Your task to perform on an android device: Open display settings Image 0: 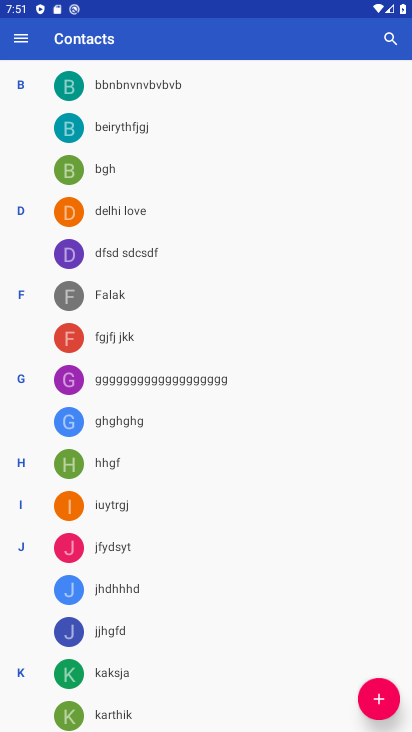
Step 0: press back button
Your task to perform on an android device: Open display settings Image 1: 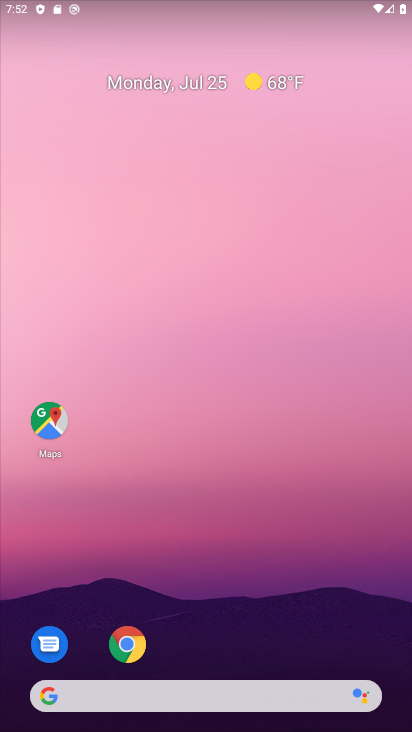
Step 1: drag from (232, 253) to (171, 102)
Your task to perform on an android device: Open display settings Image 2: 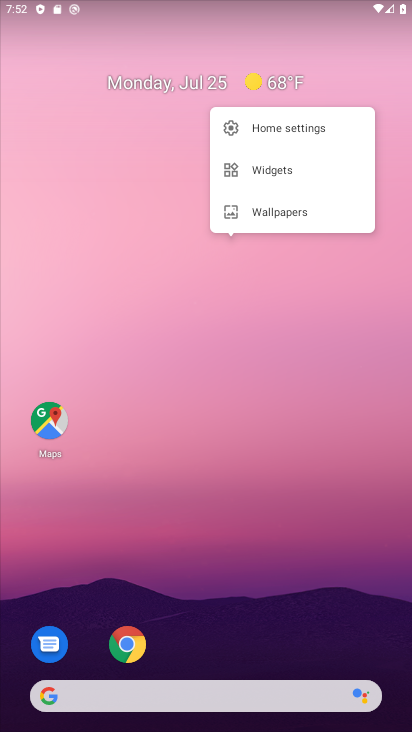
Step 2: click (209, 36)
Your task to perform on an android device: Open display settings Image 3: 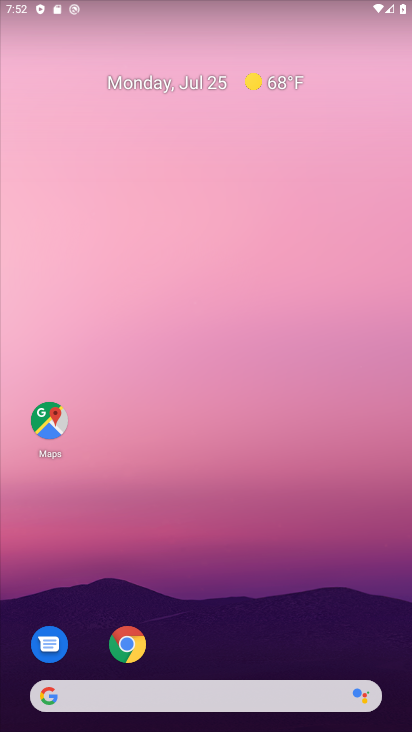
Step 3: drag from (247, 219) to (243, 66)
Your task to perform on an android device: Open display settings Image 4: 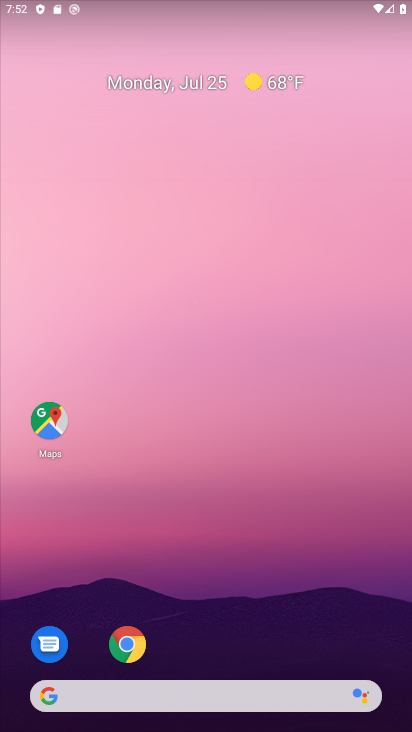
Step 4: drag from (296, 329) to (219, 147)
Your task to perform on an android device: Open display settings Image 5: 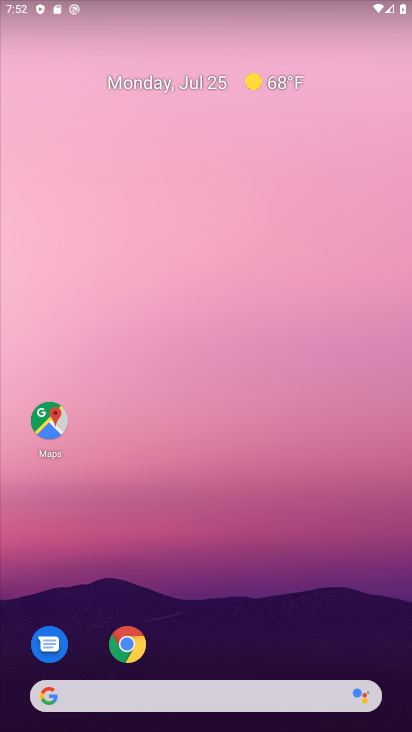
Step 5: drag from (168, 21) to (270, 65)
Your task to perform on an android device: Open display settings Image 6: 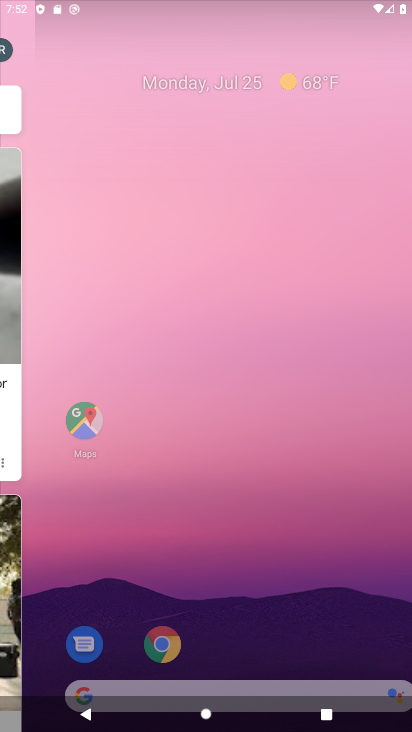
Step 6: drag from (261, 537) to (224, 74)
Your task to perform on an android device: Open display settings Image 7: 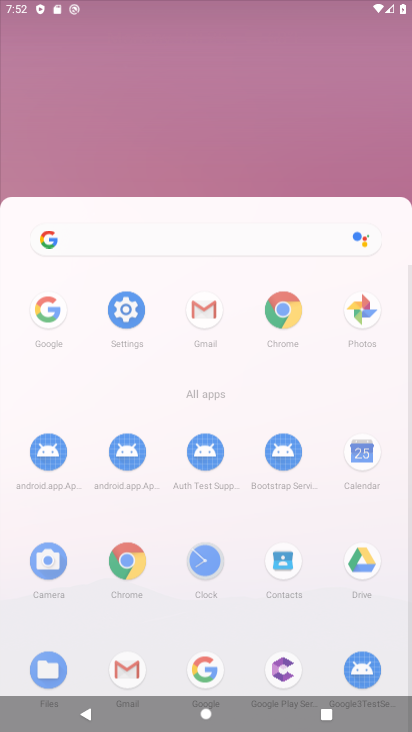
Step 7: drag from (187, 478) to (170, 58)
Your task to perform on an android device: Open display settings Image 8: 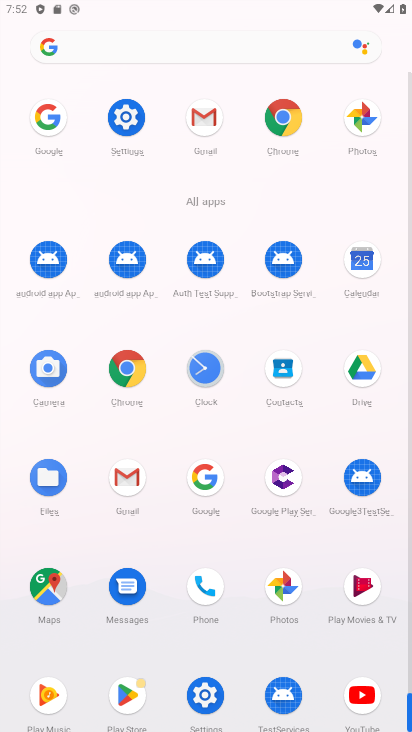
Step 8: drag from (177, 360) to (157, 28)
Your task to perform on an android device: Open display settings Image 9: 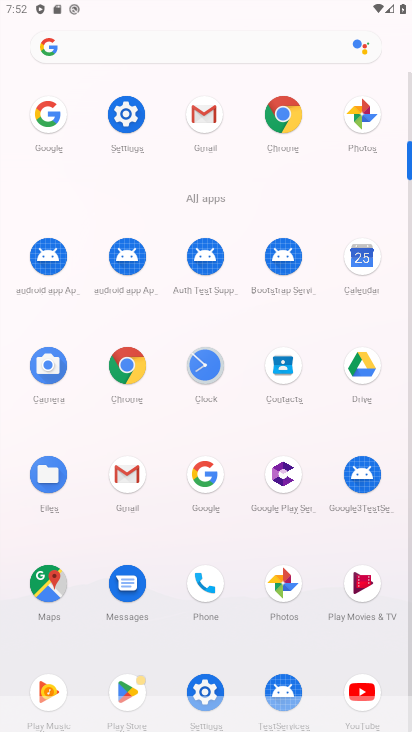
Step 9: drag from (202, 472) to (197, 50)
Your task to perform on an android device: Open display settings Image 10: 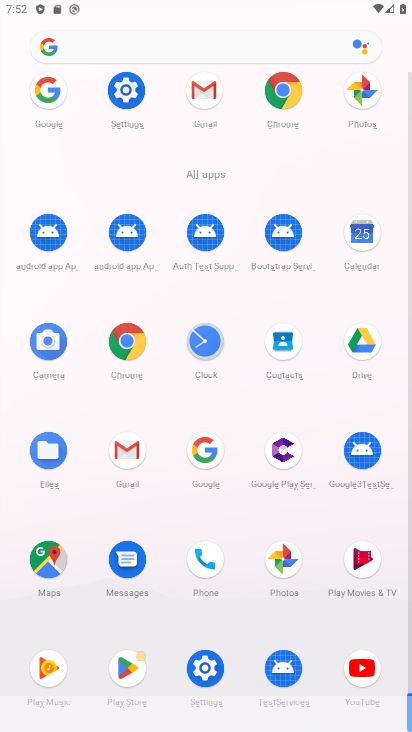
Step 10: click (126, 116)
Your task to perform on an android device: Open display settings Image 11: 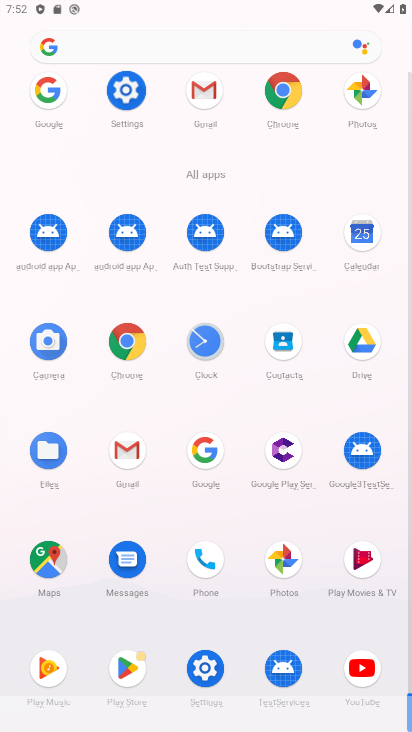
Step 11: click (135, 117)
Your task to perform on an android device: Open display settings Image 12: 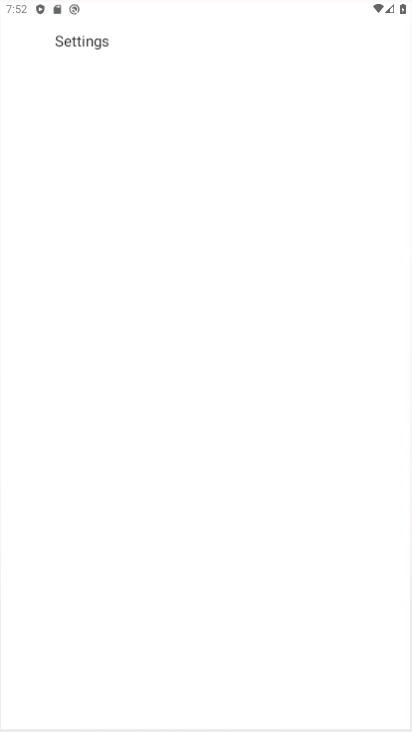
Step 12: click (136, 119)
Your task to perform on an android device: Open display settings Image 13: 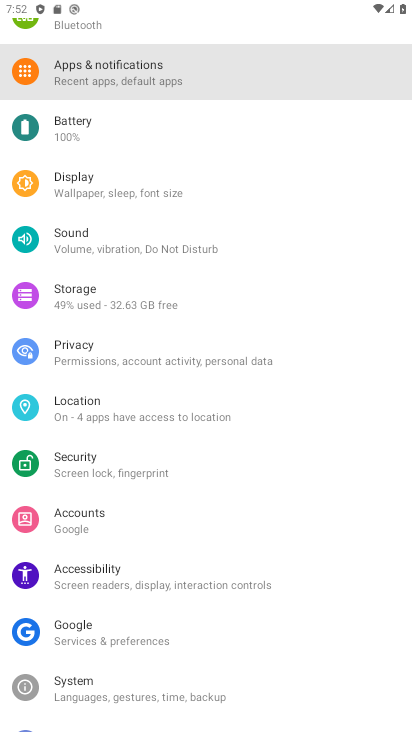
Step 13: click (110, 77)
Your task to perform on an android device: Open display settings Image 14: 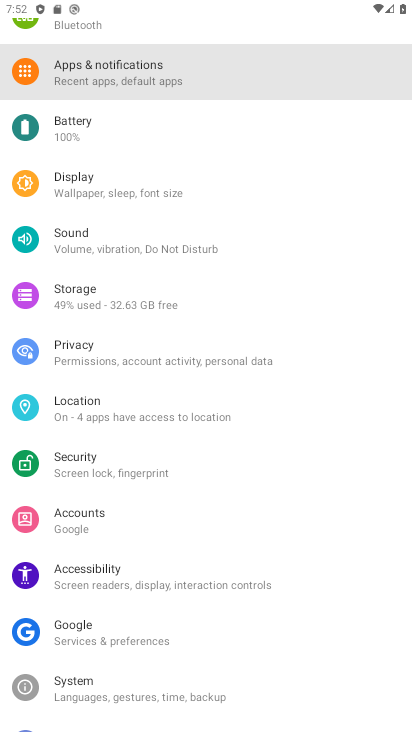
Step 14: click (132, 90)
Your task to perform on an android device: Open display settings Image 15: 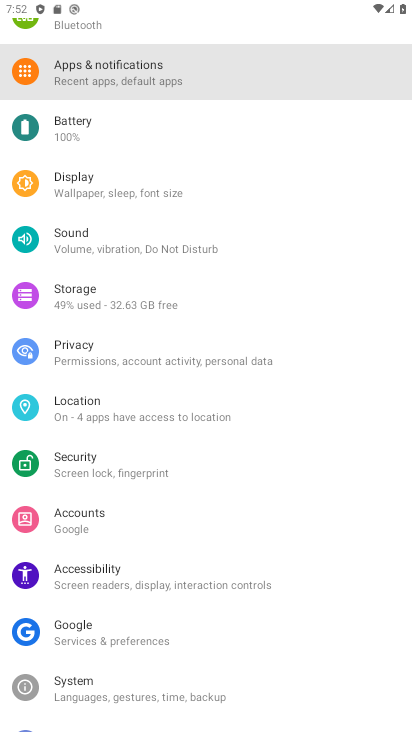
Step 15: click (132, 90)
Your task to perform on an android device: Open display settings Image 16: 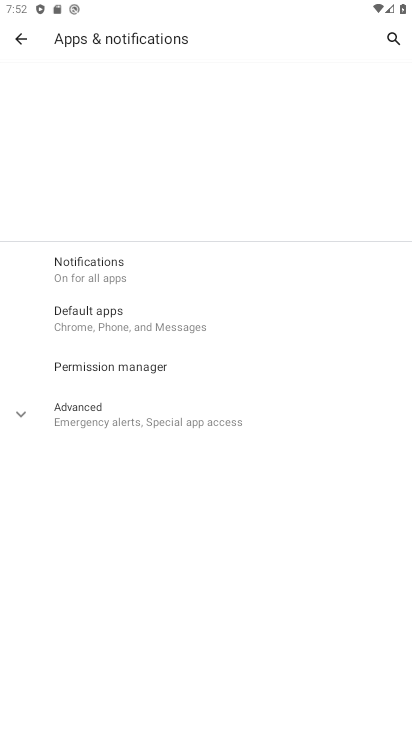
Step 16: click (80, 187)
Your task to perform on an android device: Open display settings Image 17: 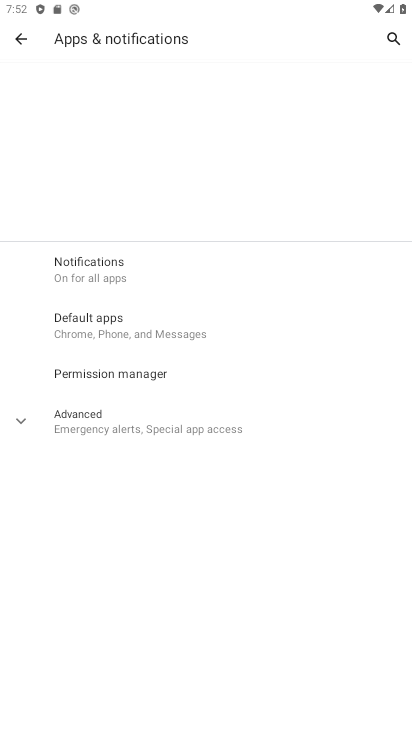
Step 17: click (80, 184)
Your task to perform on an android device: Open display settings Image 18: 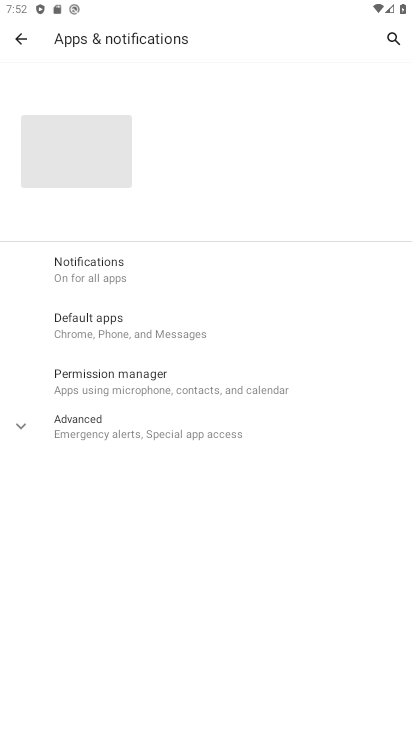
Step 18: click (80, 183)
Your task to perform on an android device: Open display settings Image 19: 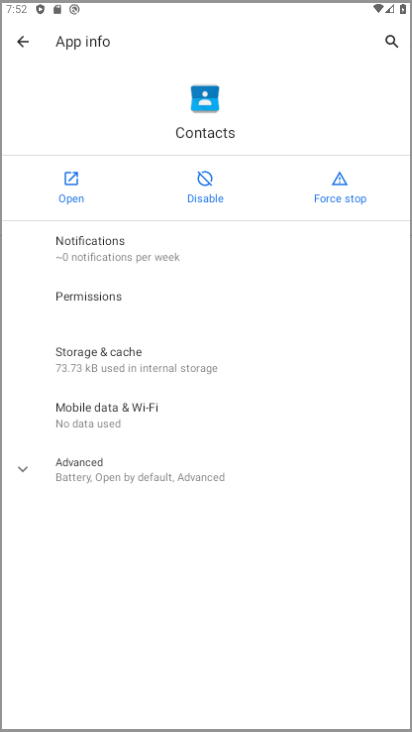
Step 19: click (19, 44)
Your task to perform on an android device: Open display settings Image 20: 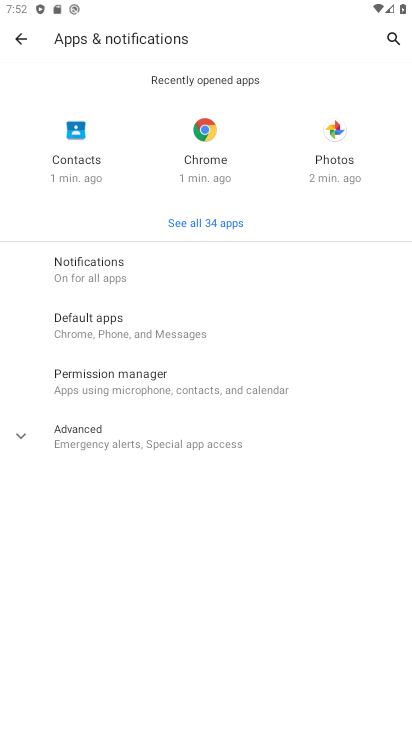
Step 20: click (16, 28)
Your task to perform on an android device: Open display settings Image 21: 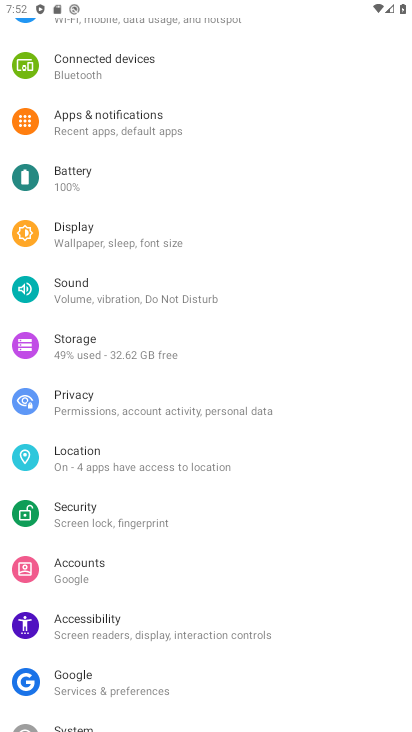
Step 21: click (65, 236)
Your task to perform on an android device: Open display settings Image 22: 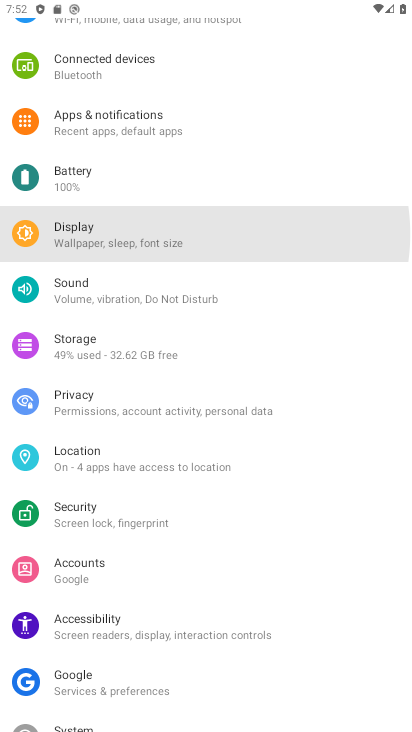
Step 22: click (76, 229)
Your task to perform on an android device: Open display settings Image 23: 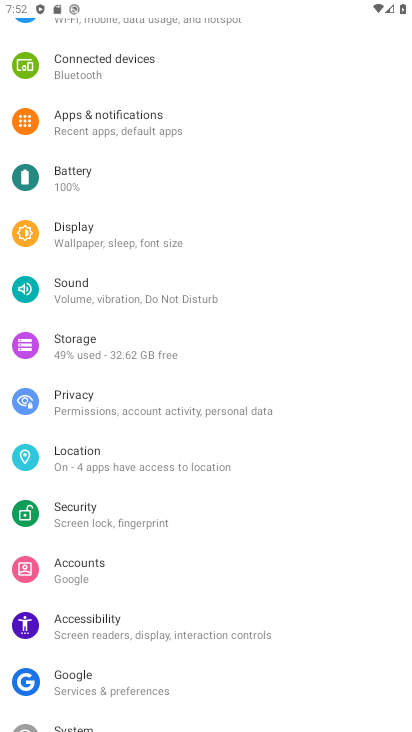
Step 23: click (79, 230)
Your task to perform on an android device: Open display settings Image 24: 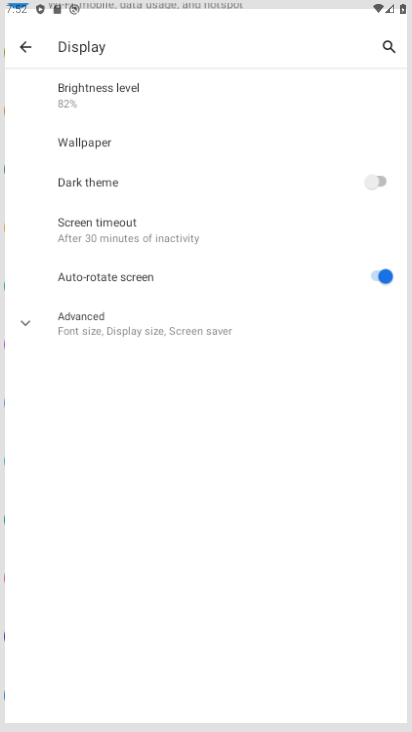
Step 24: click (80, 231)
Your task to perform on an android device: Open display settings Image 25: 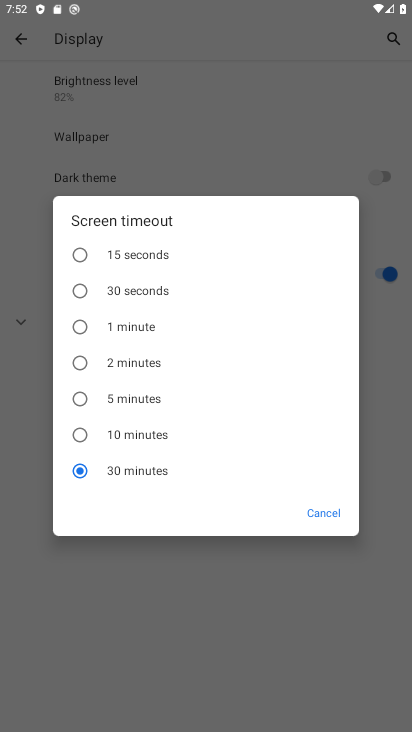
Step 25: task complete